Your task to perform on an android device: What's the weather today? Image 0: 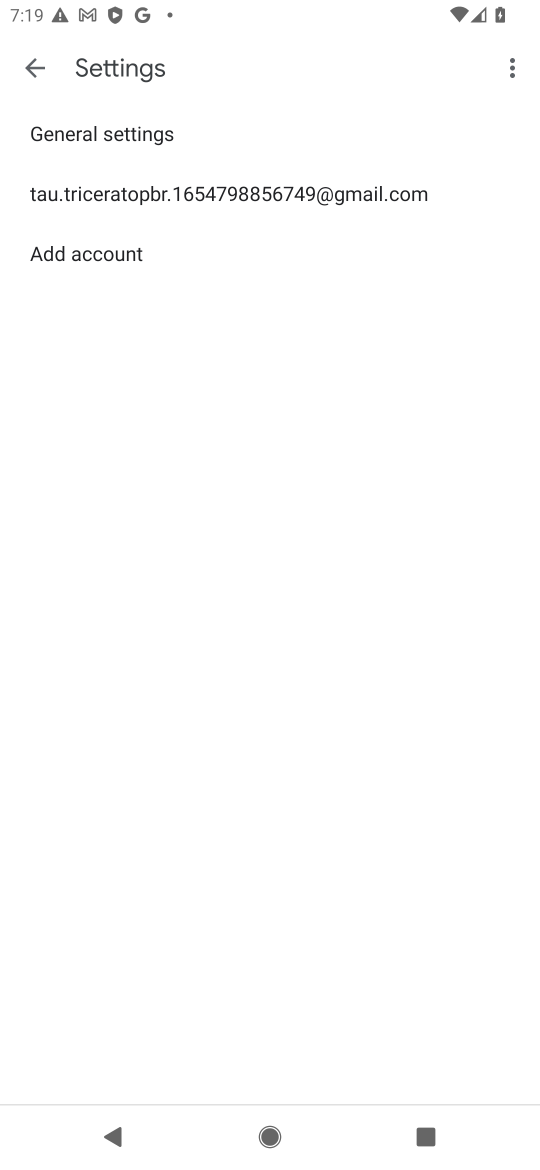
Step 0: press home button
Your task to perform on an android device: What's the weather today? Image 1: 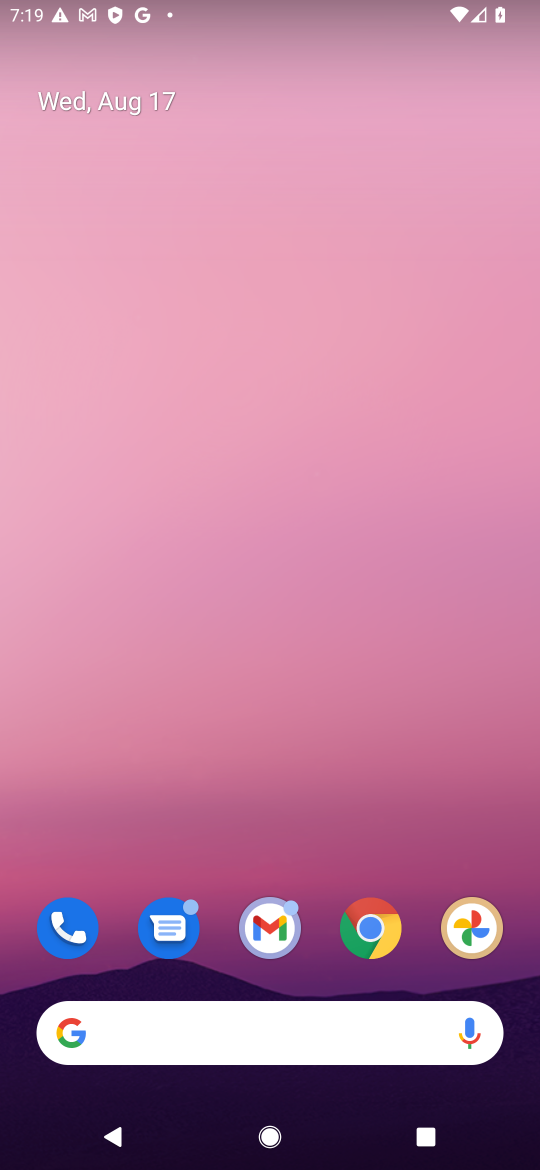
Step 1: click (361, 954)
Your task to perform on an android device: What's the weather today? Image 2: 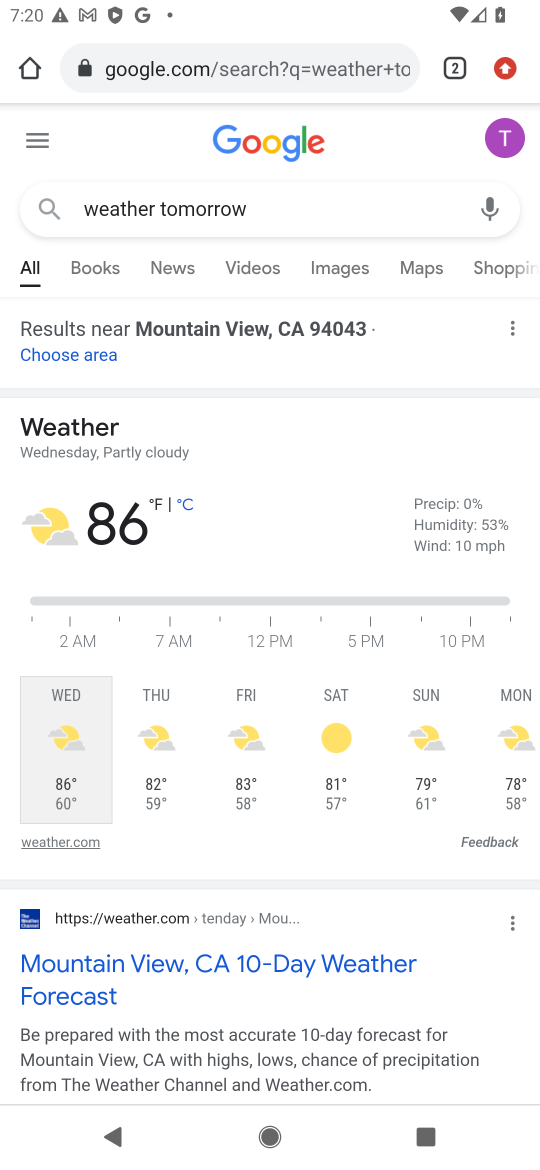
Step 2: drag from (77, 745) to (378, 755)
Your task to perform on an android device: What's the weather today? Image 3: 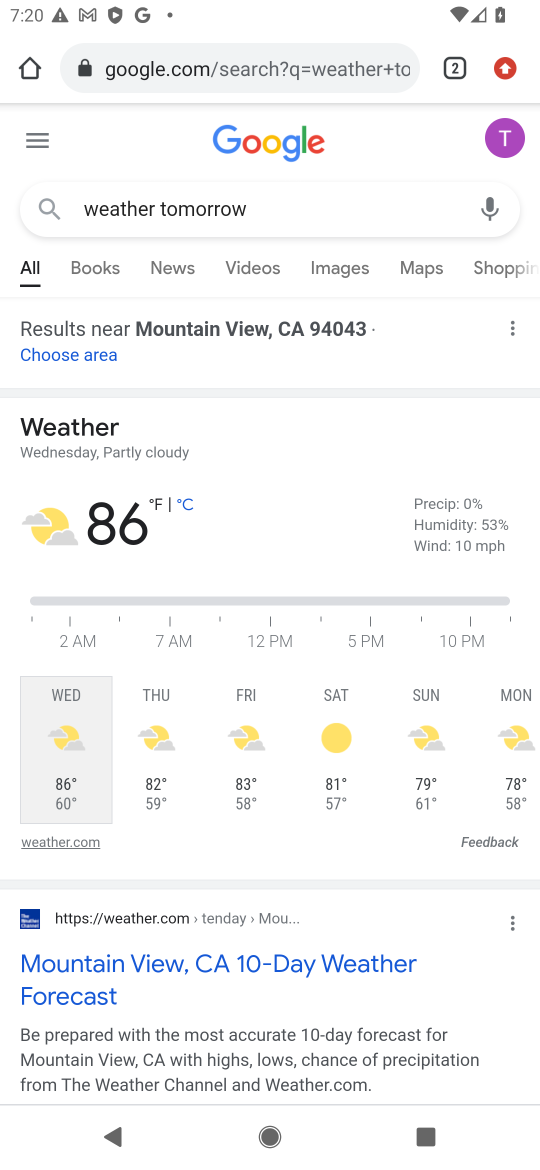
Step 3: click (319, 193)
Your task to perform on an android device: What's the weather today? Image 4: 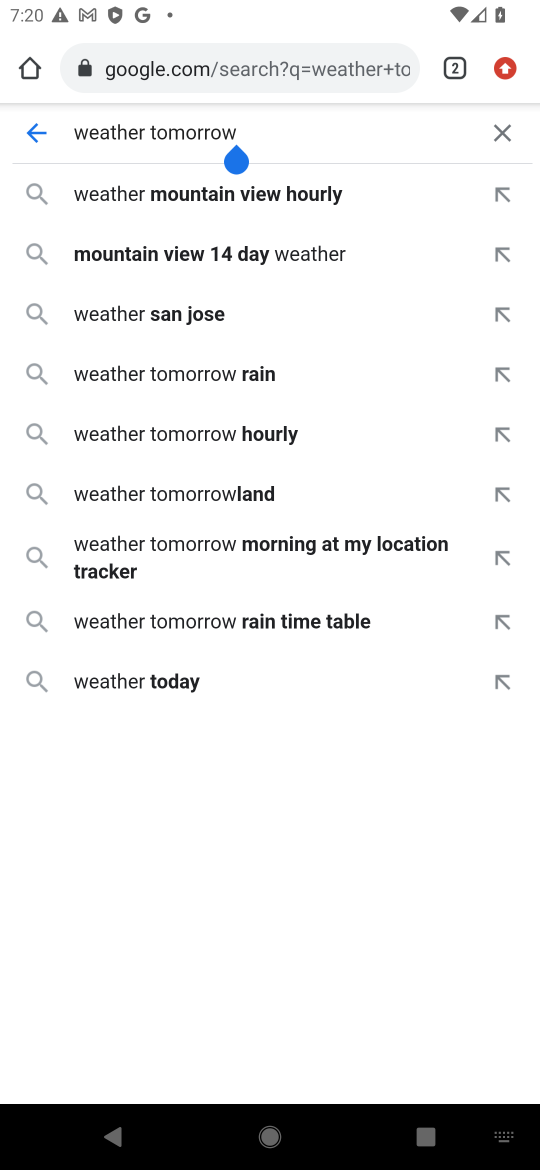
Step 4: click (506, 145)
Your task to perform on an android device: What's the weather today? Image 5: 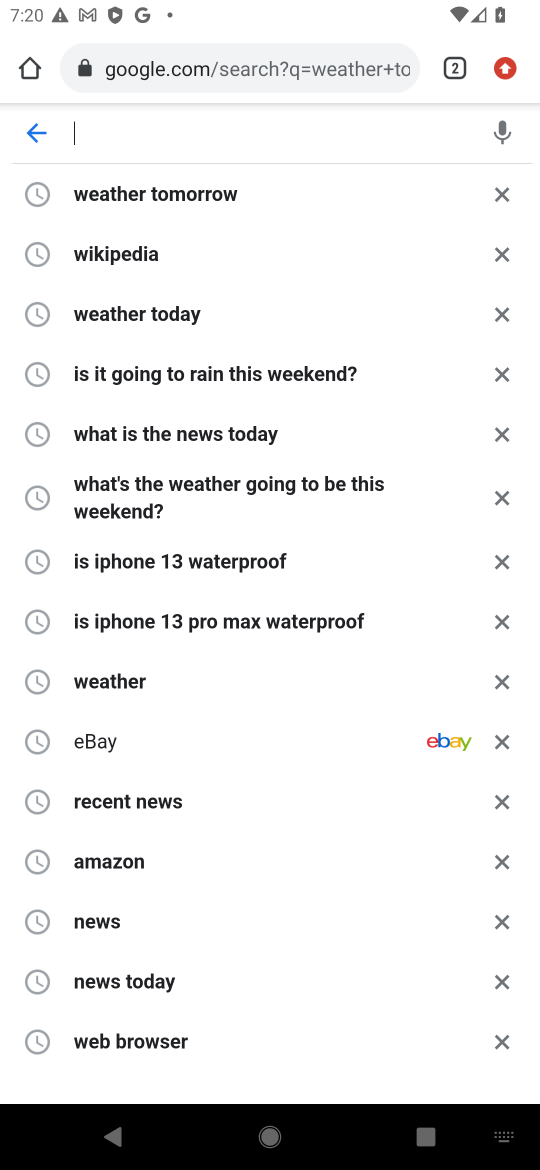
Step 5: click (290, 309)
Your task to perform on an android device: What's the weather today? Image 6: 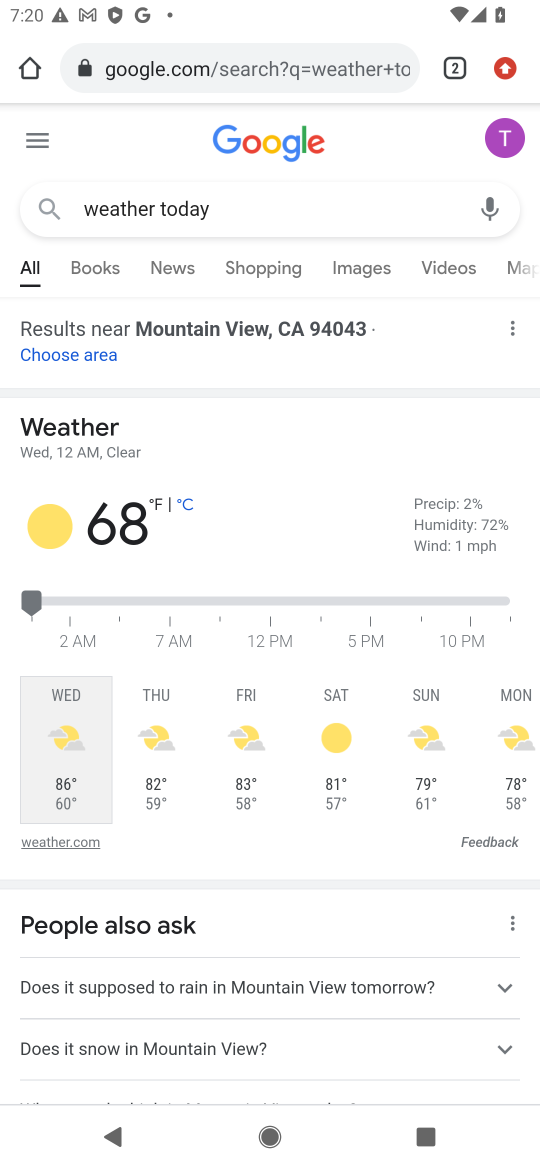
Step 6: task complete